Your task to perform on an android device: allow cookies in the chrome app Image 0: 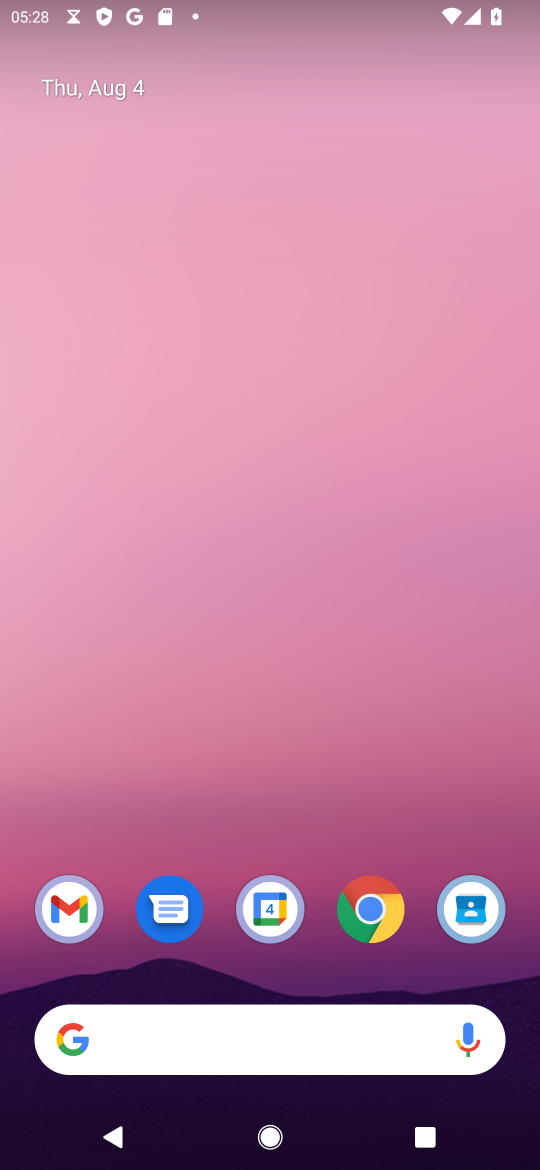
Step 0: click (367, 908)
Your task to perform on an android device: allow cookies in the chrome app Image 1: 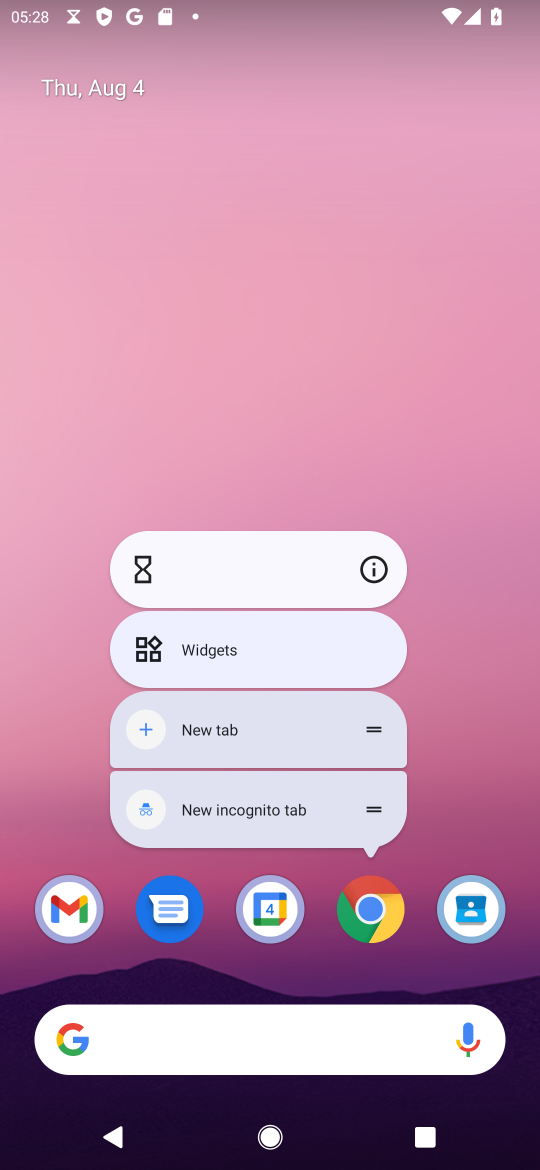
Step 1: click (367, 908)
Your task to perform on an android device: allow cookies in the chrome app Image 2: 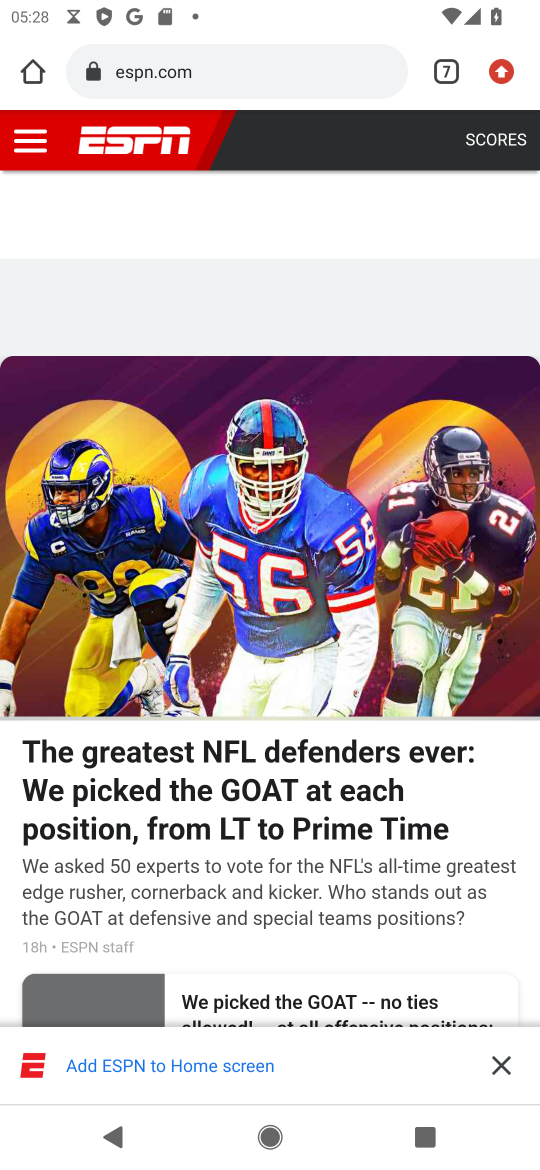
Step 2: click (499, 91)
Your task to perform on an android device: allow cookies in the chrome app Image 3: 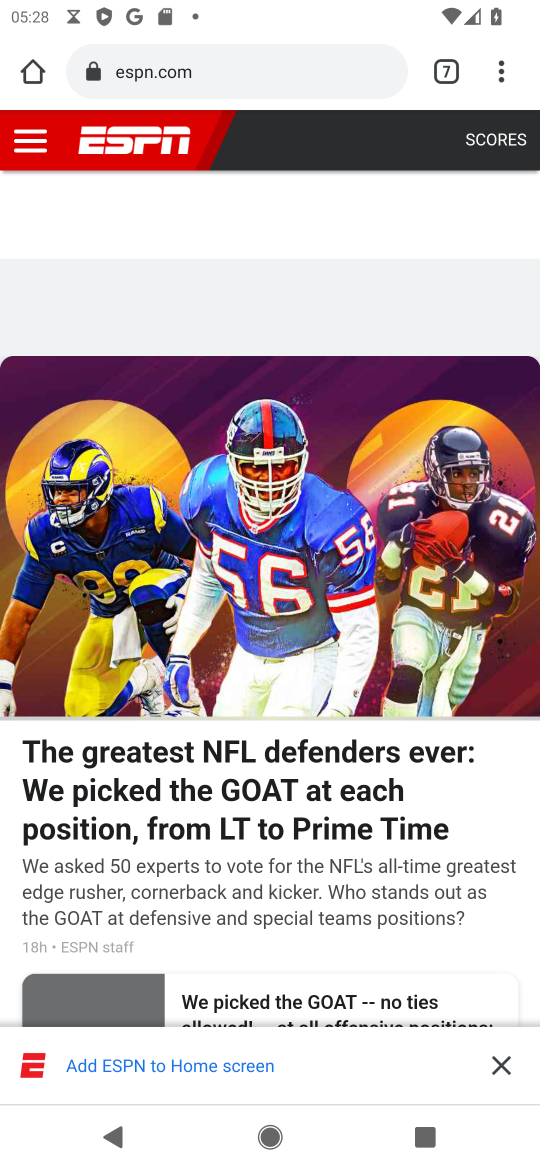
Step 3: drag from (502, 77) to (321, 990)
Your task to perform on an android device: allow cookies in the chrome app Image 4: 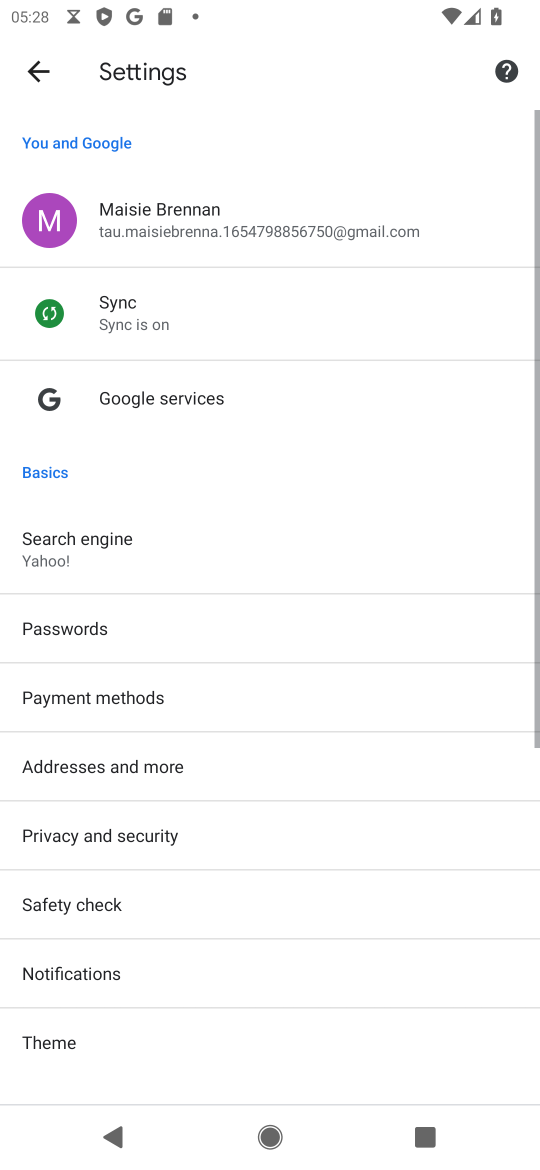
Step 4: drag from (226, 975) to (312, 389)
Your task to perform on an android device: allow cookies in the chrome app Image 5: 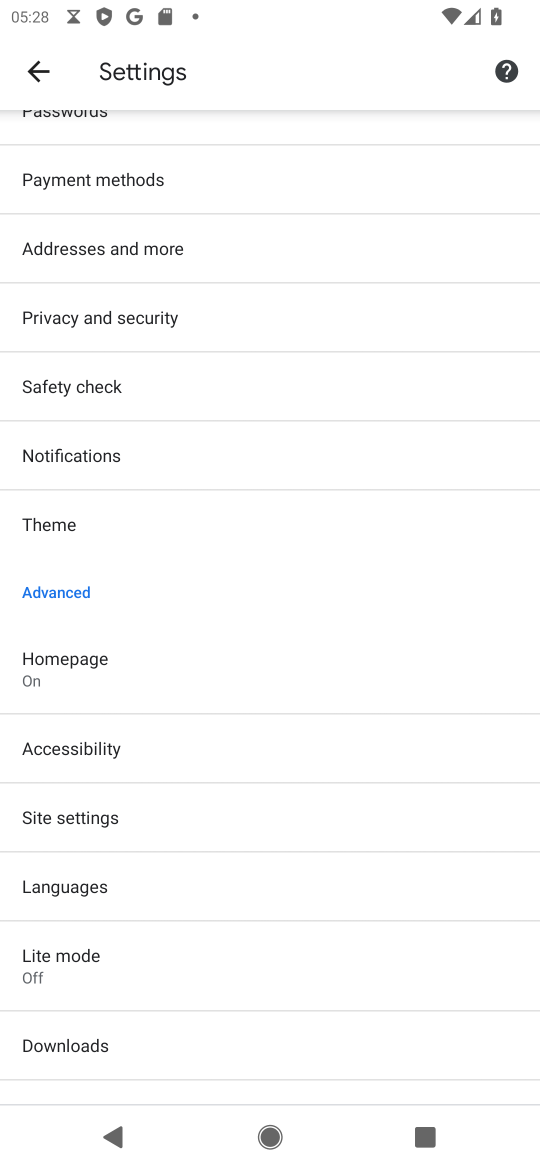
Step 5: click (94, 817)
Your task to perform on an android device: allow cookies in the chrome app Image 6: 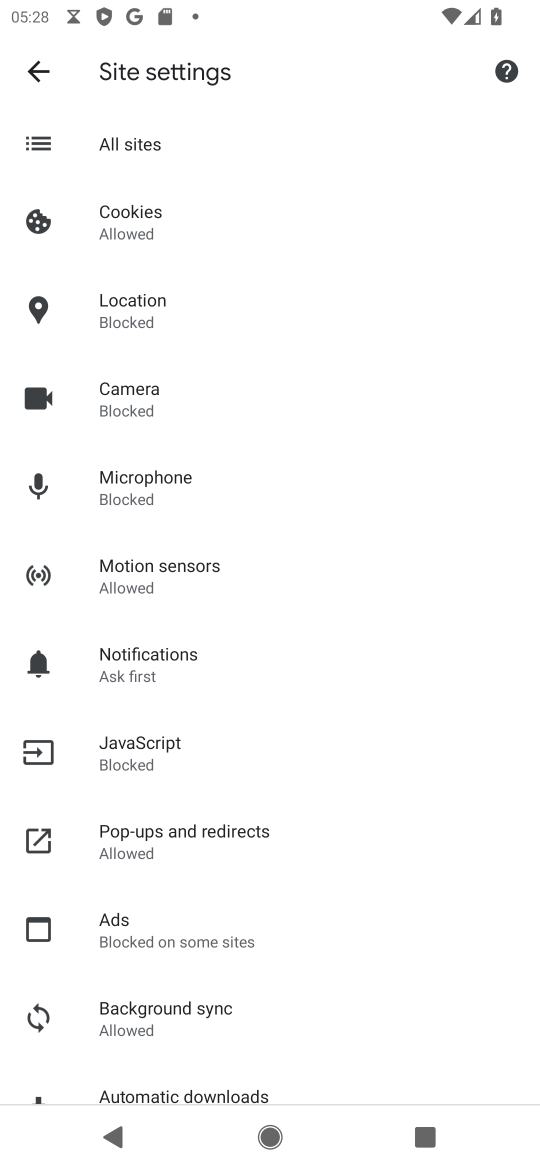
Step 6: click (142, 223)
Your task to perform on an android device: allow cookies in the chrome app Image 7: 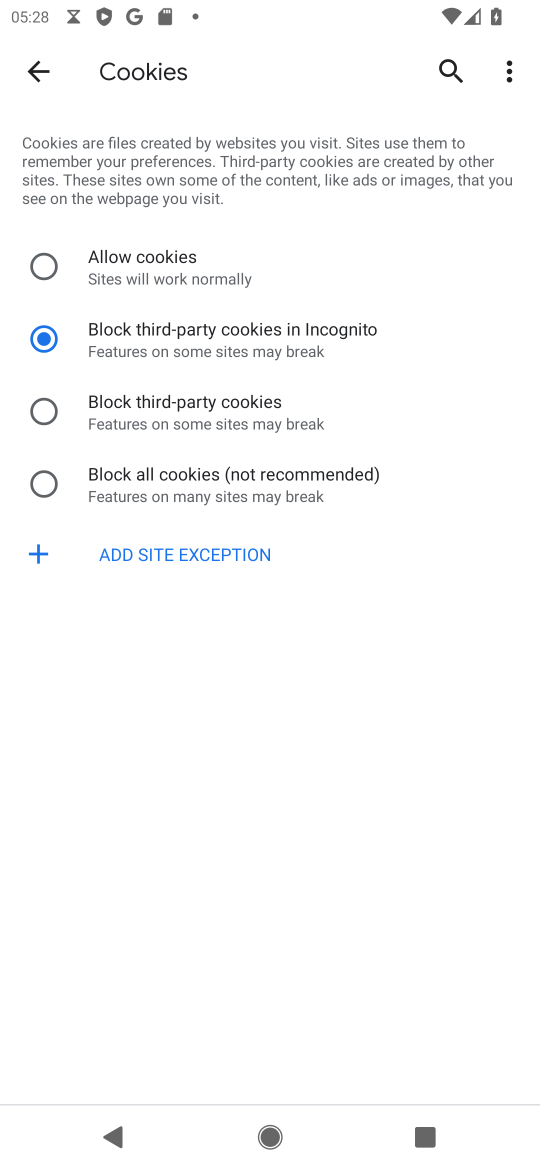
Step 7: click (41, 259)
Your task to perform on an android device: allow cookies in the chrome app Image 8: 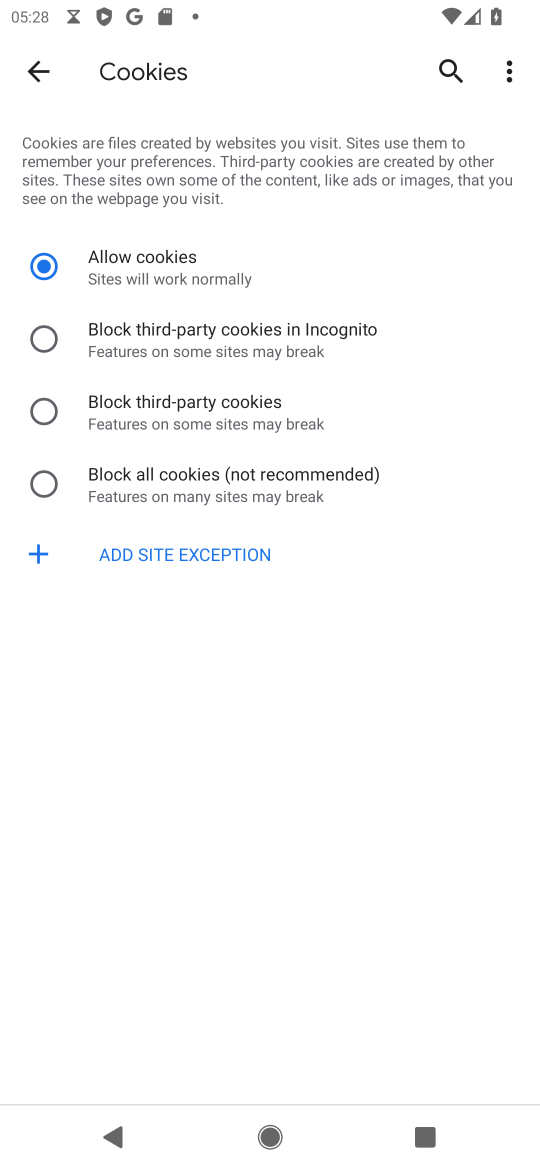
Step 8: task complete